Your task to perform on an android device: Show me productivity apps on the Play Store Image 0: 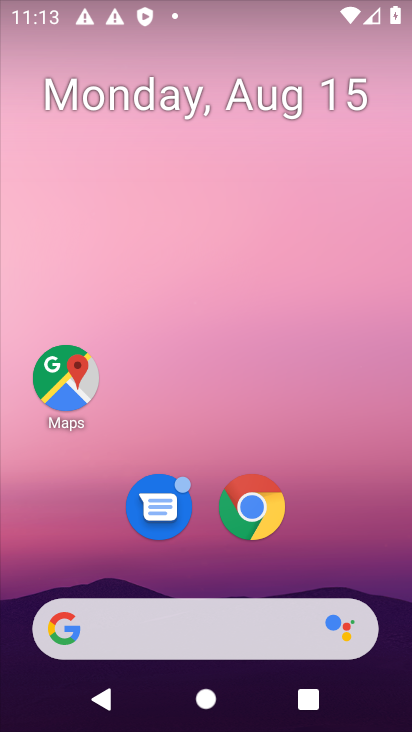
Step 0: drag from (217, 573) to (224, 26)
Your task to perform on an android device: Show me productivity apps on the Play Store Image 1: 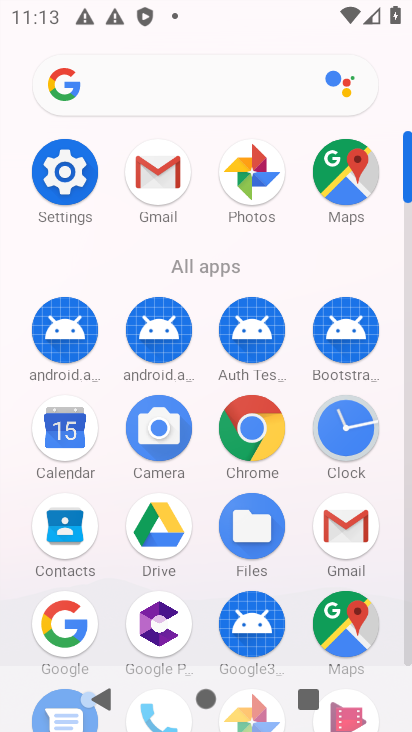
Step 1: drag from (198, 659) to (187, 274)
Your task to perform on an android device: Show me productivity apps on the Play Store Image 2: 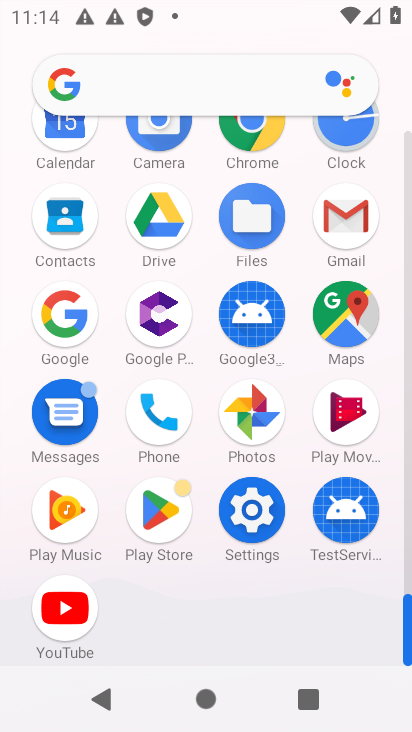
Step 2: click (162, 518)
Your task to perform on an android device: Show me productivity apps on the Play Store Image 3: 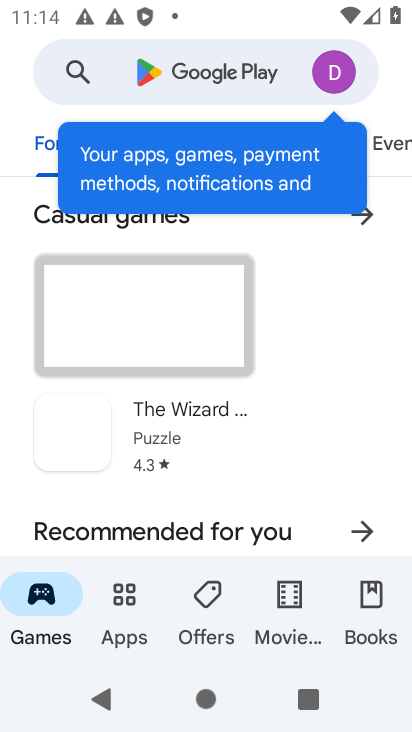
Step 3: click (119, 606)
Your task to perform on an android device: Show me productivity apps on the Play Store Image 4: 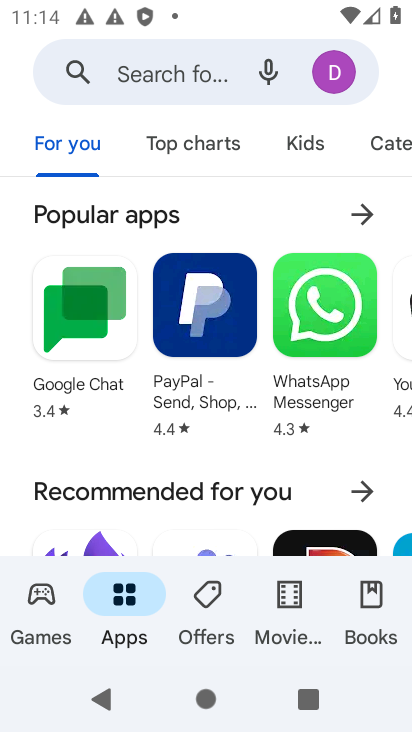
Step 4: task complete